Your task to perform on an android device: Open the files app Image 0: 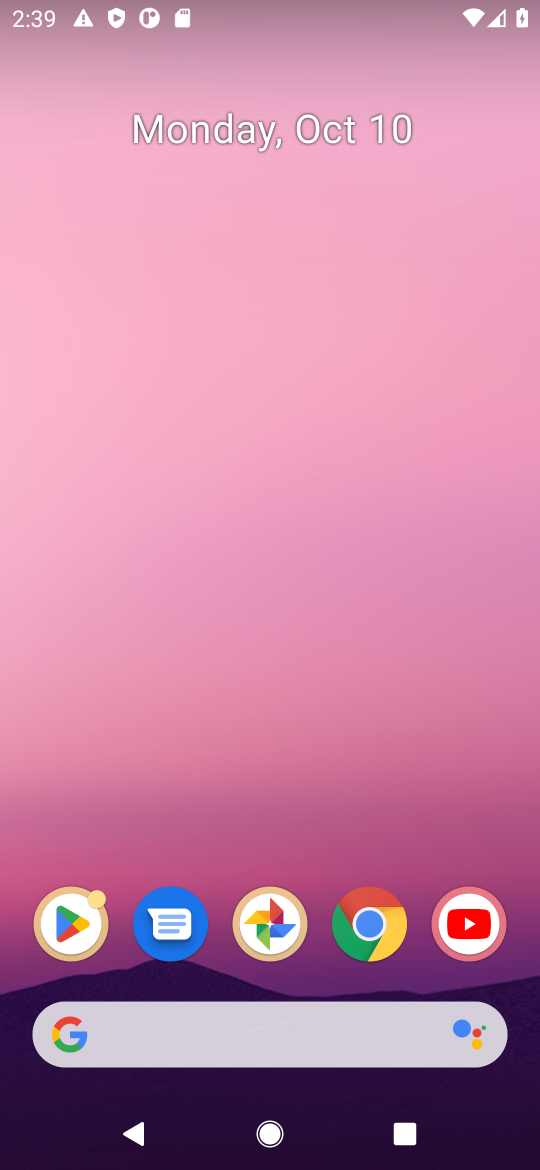
Step 0: drag from (310, 966) to (316, 317)
Your task to perform on an android device: Open the files app Image 1: 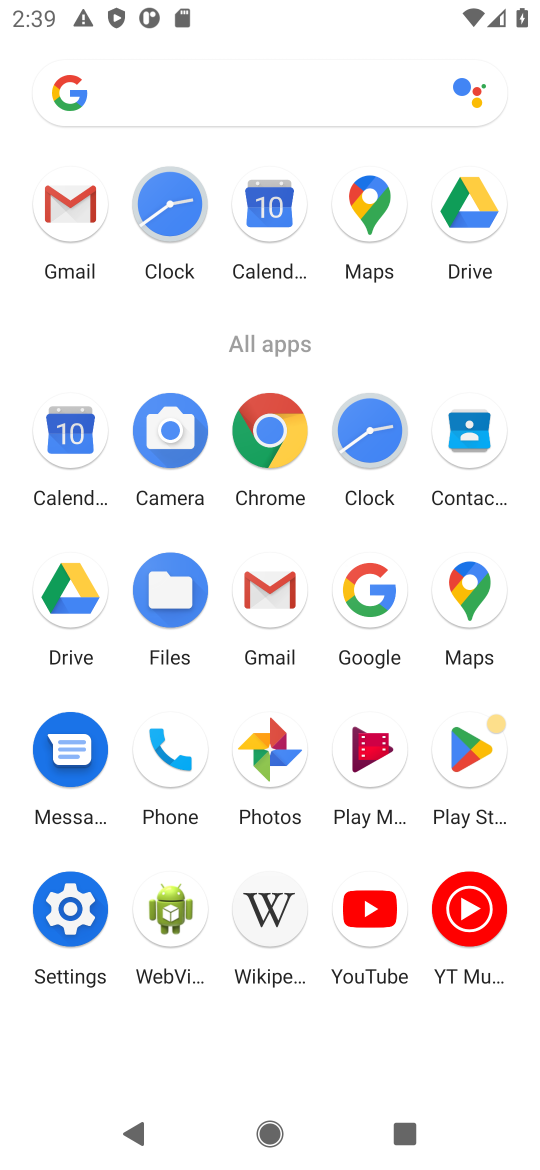
Step 1: drag from (351, 885) to (364, 775)
Your task to perform on an android device: Open the files app Image 2: 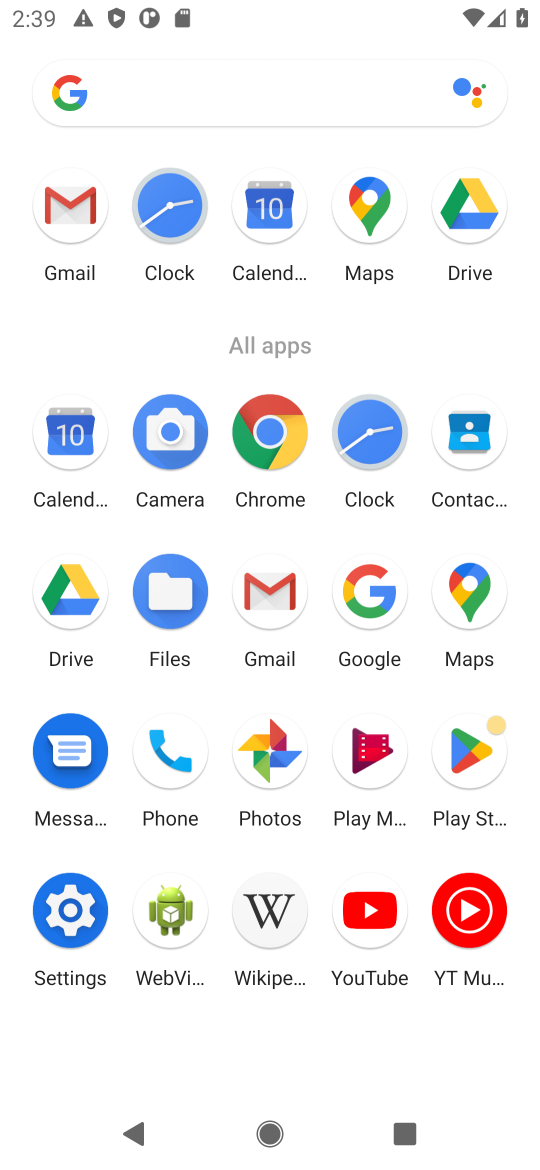
Step 2: click (167, 577)
Your task to perform on an android device: Open the files app Image 3: 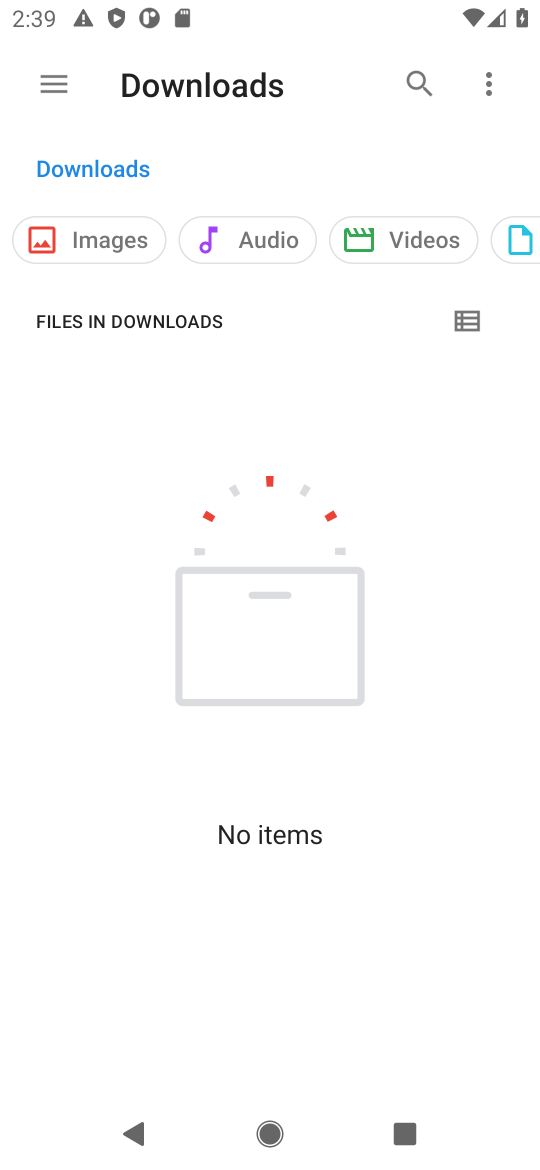
Step 3: drag from (293, 790) to (318, 470)
Your task to perform on an android device: Open the files app Image 4: 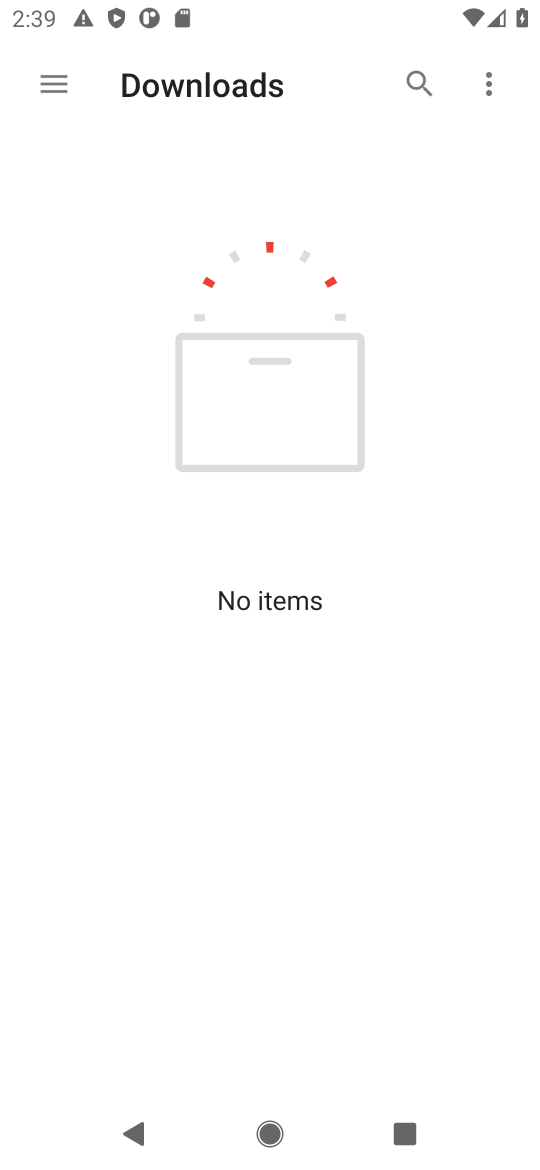
Step 4: click (38, 71)
Your task to perform on an android device: Open the files app Image 5: 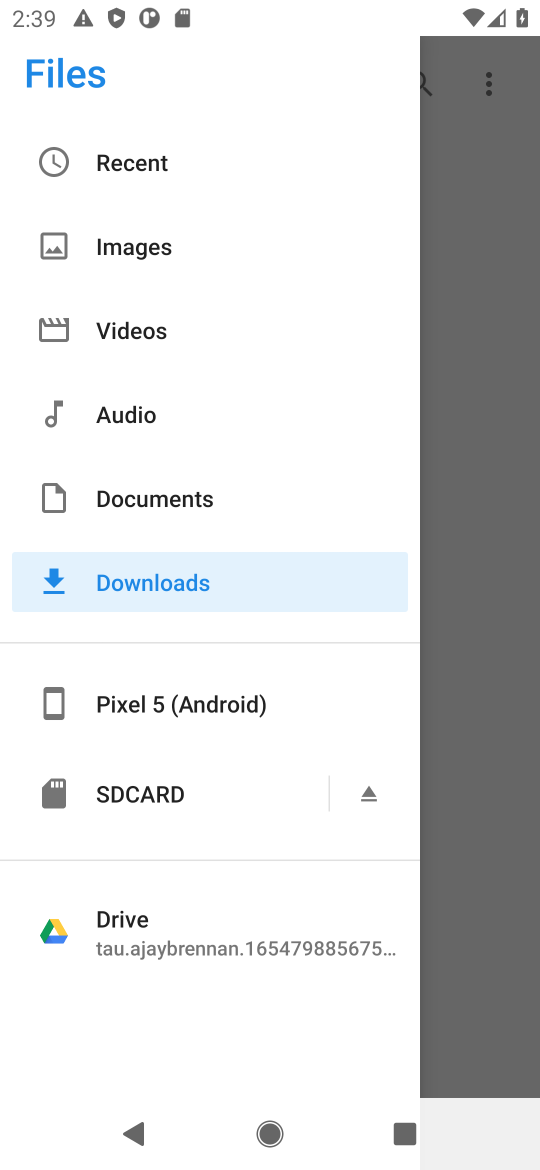
Step 5: click (193, 160)
Your task to perform on an android device: Open the files app Image 6: 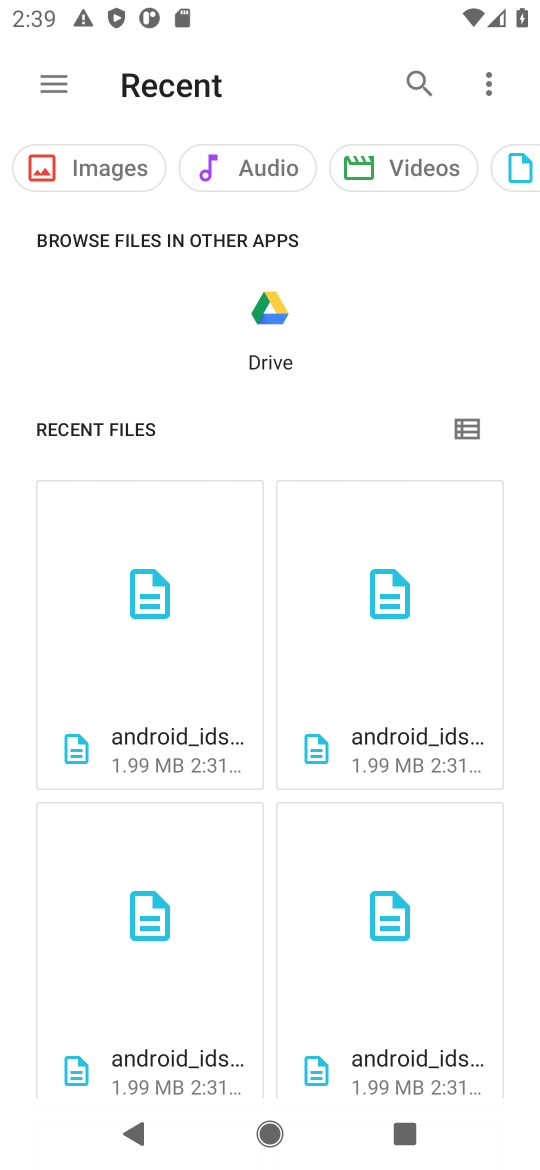
Step 6: click (34, 89)
Your task to perform on an android device: Open the files app Image 7: 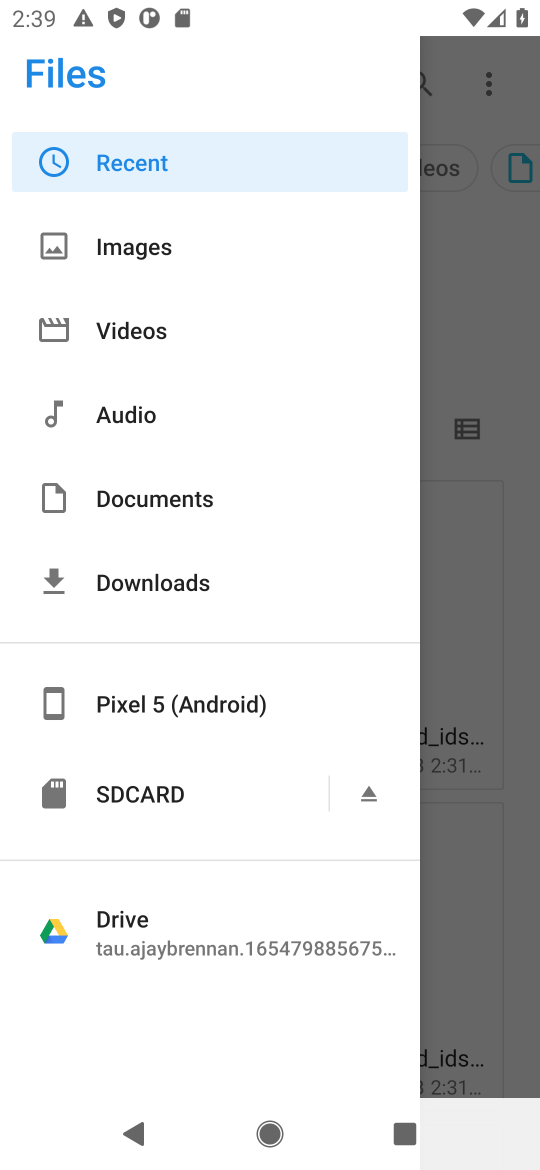
Step 7: click (162, 256)
Your task to perform on an android device: Open the files app Image 8: 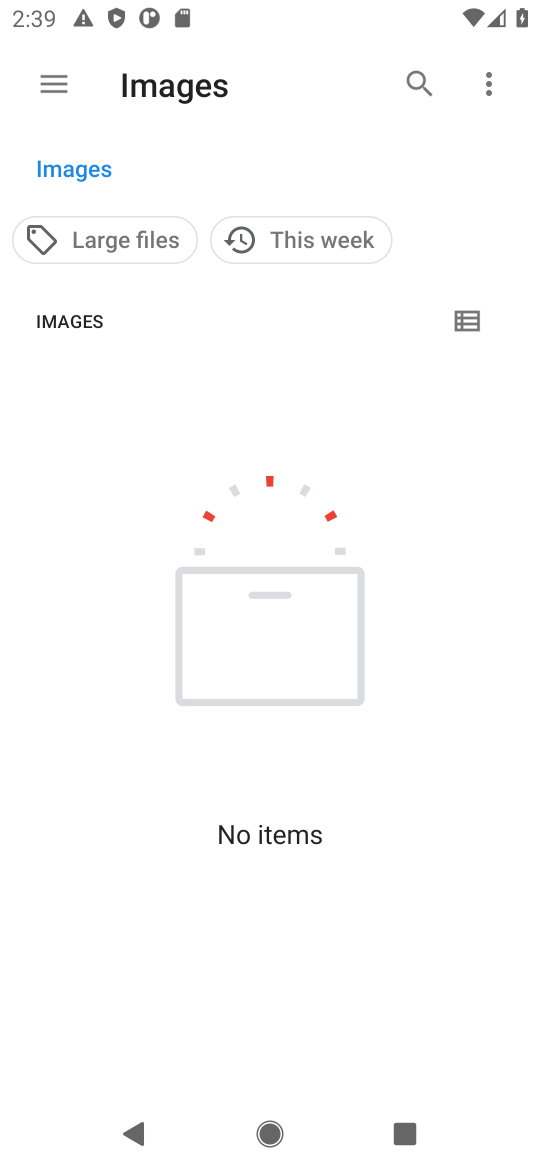
Step 8: drag from (367, 622) to (362, 470)
Your task to perform on an android device: Open the files app Image 9: 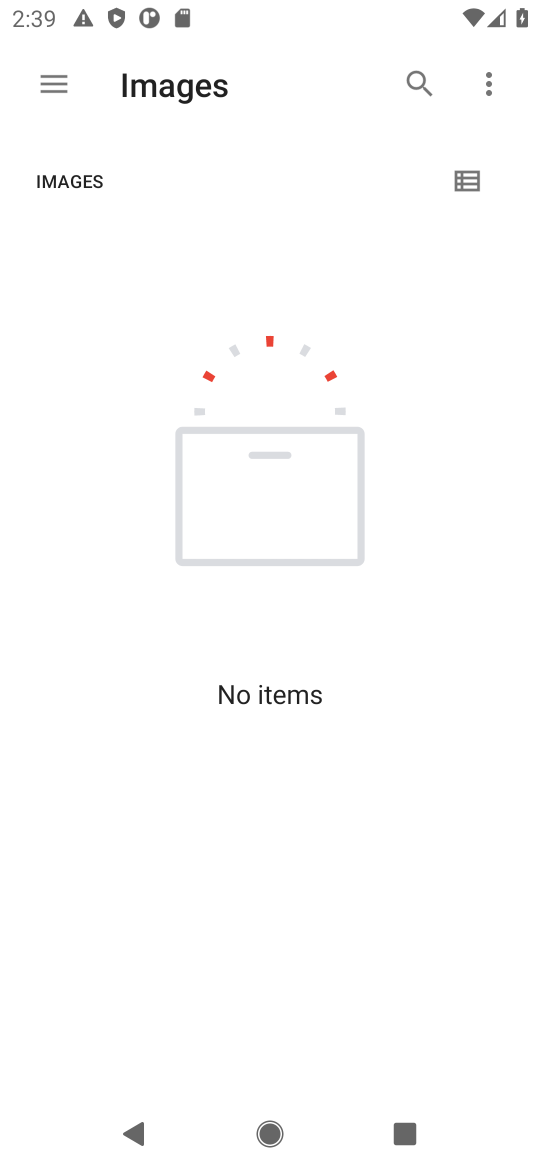
Step 9: click (320, 249)
Your task to perform on an android device: Open the files app Image 10: 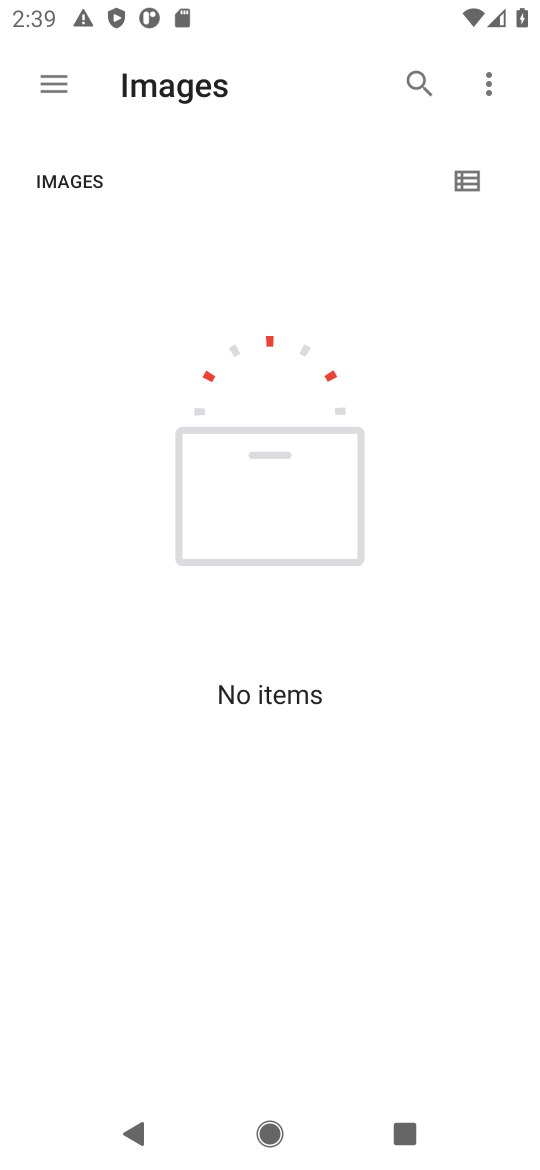
Step 10: task complete